Your task to perform on an android device: delete a single message in the gmail app Image 0: 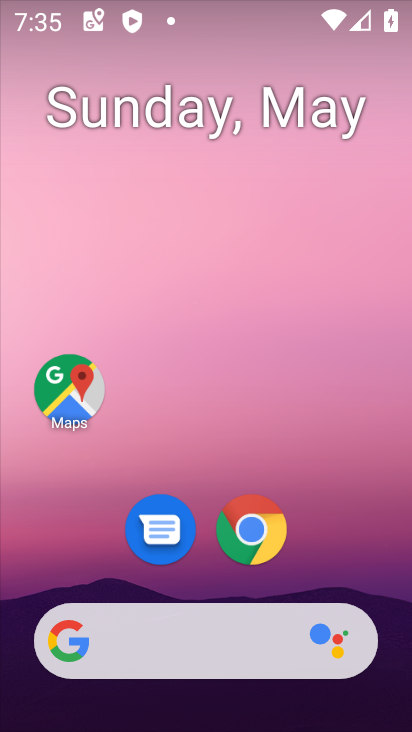
Step 0: drag from (365, 563) to (318, 21)
Your task to perform on an android device: delete a single message in the gmail app Image 1: 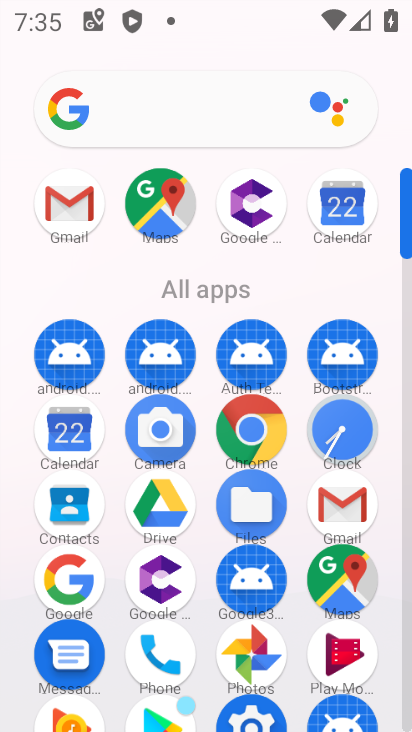
Step 1: click (79, 216)
Your task to perform on an android device: delete a single message in the gmail app Image 2: 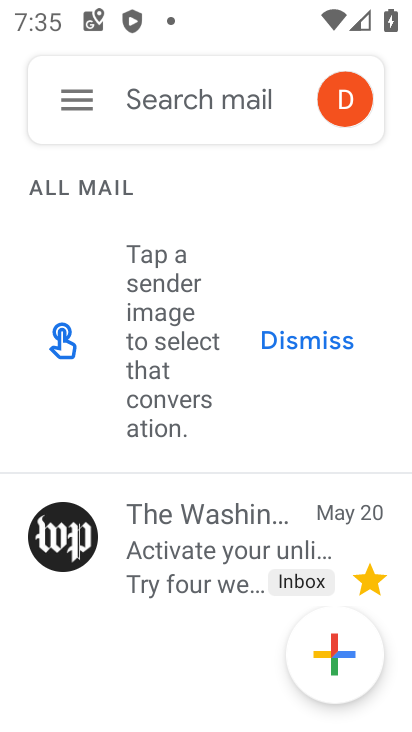
Step 2: click (198, 547)
Your task to perform on an android device: delete a single message in the gmail app Image 3: 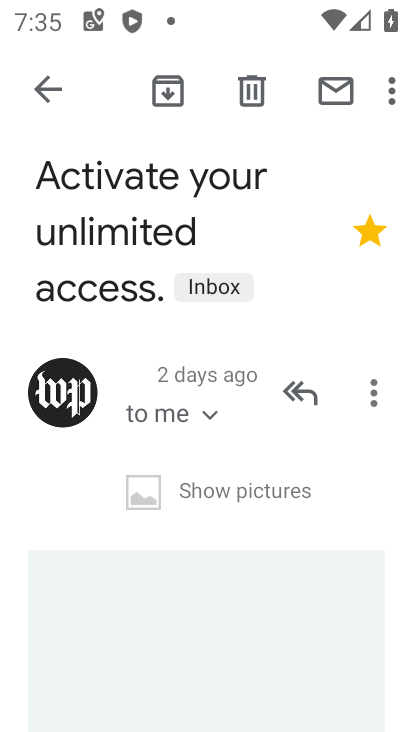
Step 3: click (246, 92)
Your task to perform on an android device: delete a single message in the gmail app Image 4: 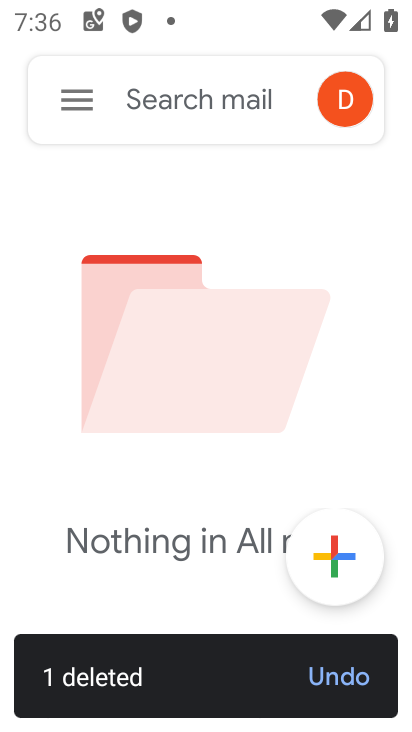
Step 4: task complete